Your task to perform on an android device: set the stopwatch Image 0: 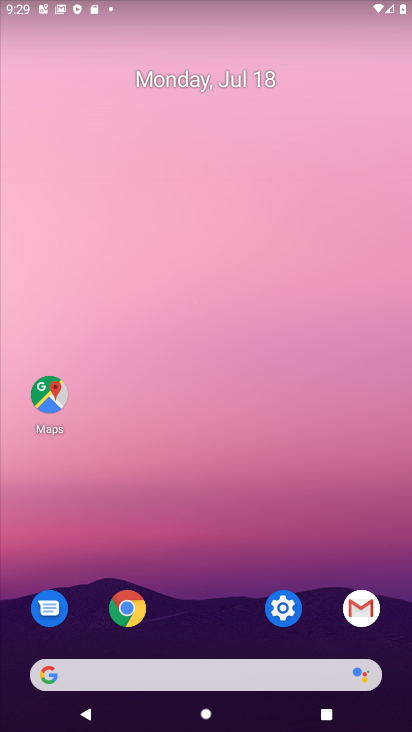
Step 0: drag from (232, 684) to (406, 53)
Your task to perform on an android device: set the stopwatch Image 1: 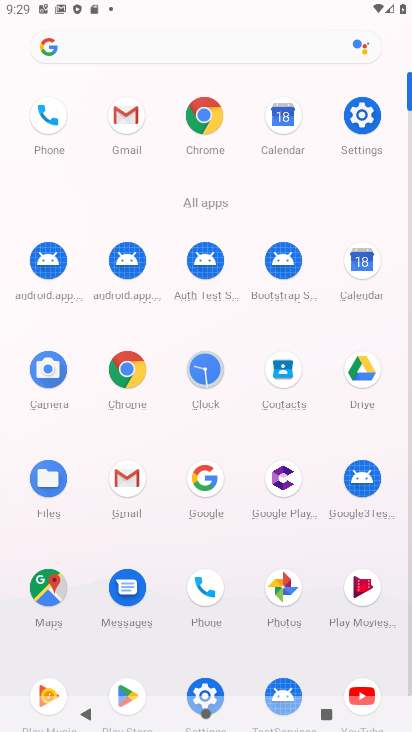
Step 1: click (209, 377)
Your task to perform on an android device: set the stopwatch Image 2: 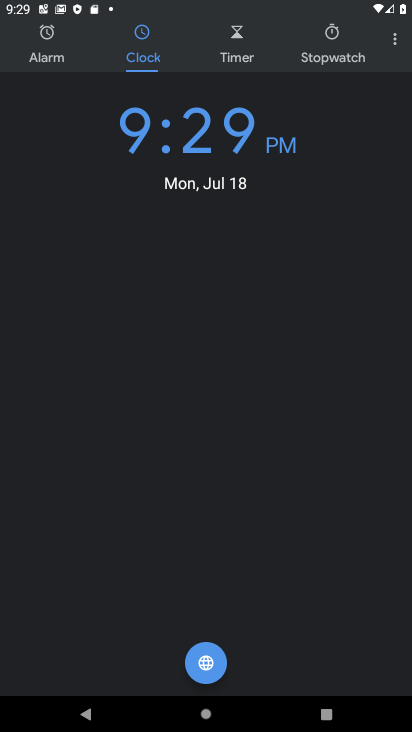
Step 2: click (322, 41)
Your task to perform on an android device: set the stopwatch Image 3: 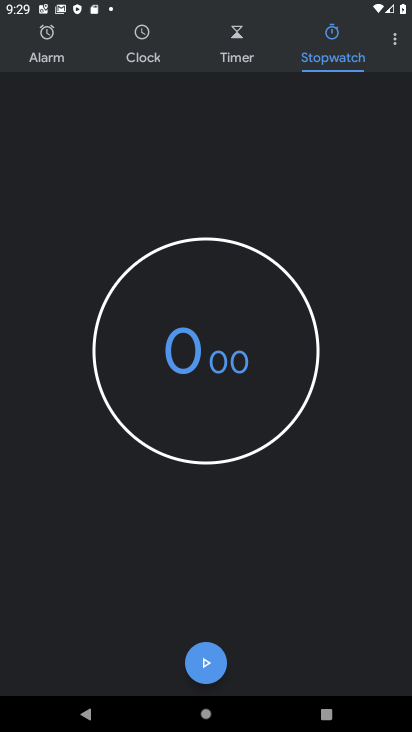
Step 3: click (209, 663)
Your task to perform on an android device: set the stopwatch Image 4: 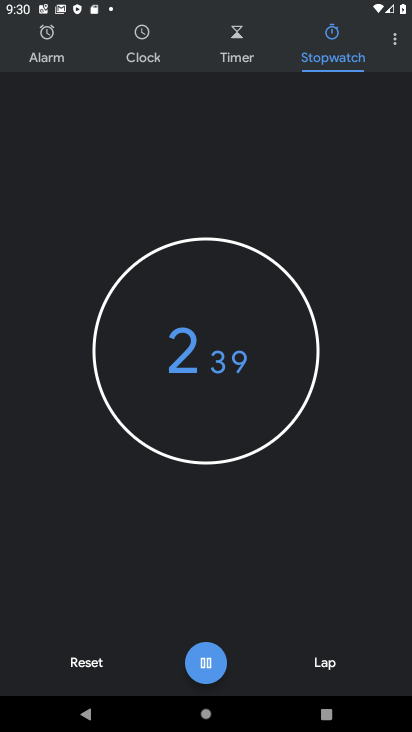
Step 4: click (209, 663)
Your task to perform on an android device: set the stopwatch Image 5: 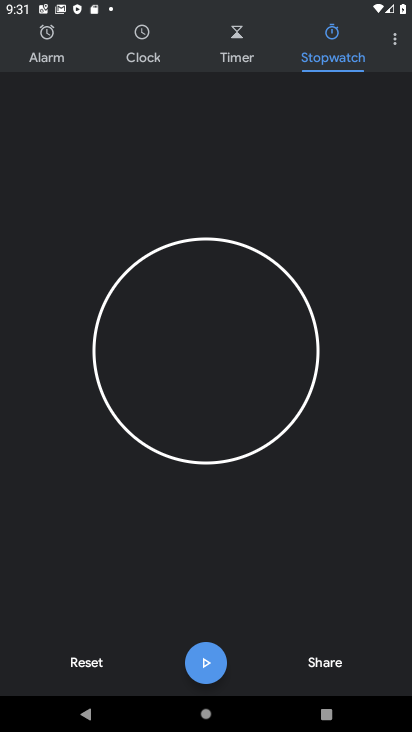
Step 5: task complete